Your task to perform on an android device: Open Yahoo.com Image 0: 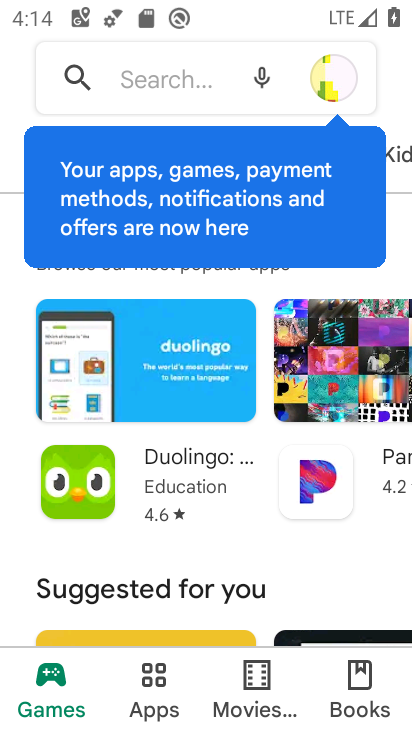
Step 0: press home button
Your task to perform on an android device: Open Yahoo.com Image 1: 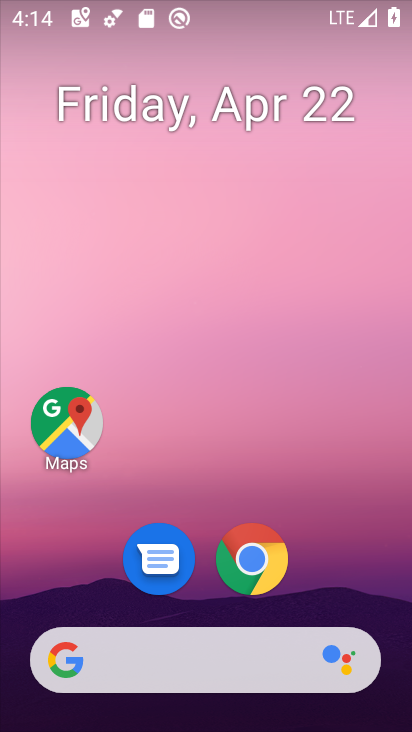
Step 1: click (270, 565)
Your task to perform on an android device: Open Yahoo.com Image 2: 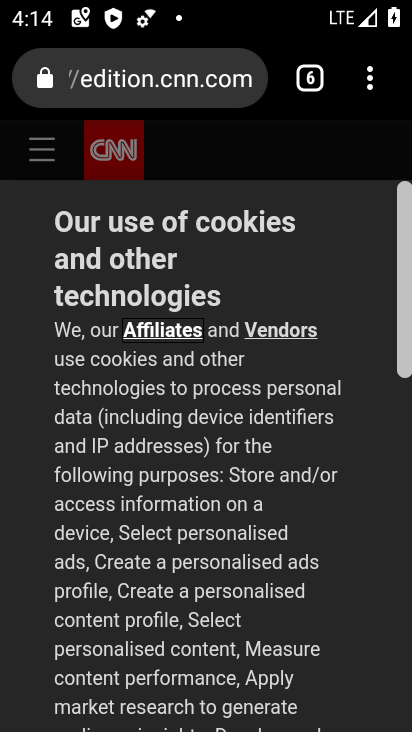
Step 2: click (299, 80)
Your task to perform on an android device: Open Yahoo.com Image 3: 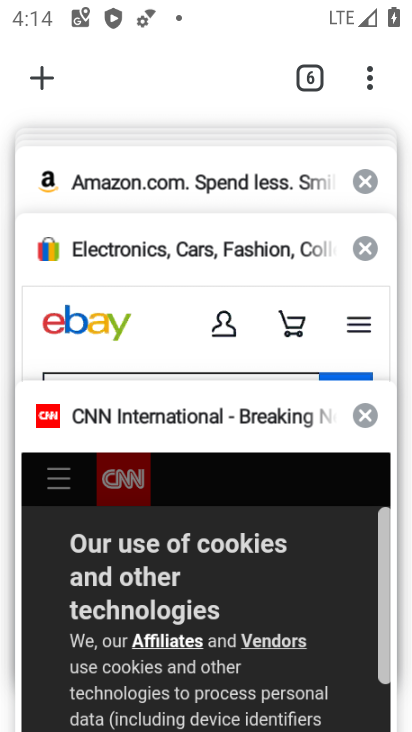
Step 3: click (42, 79)
Your task to perform on an android device: Open Yahoo.com Image 4: 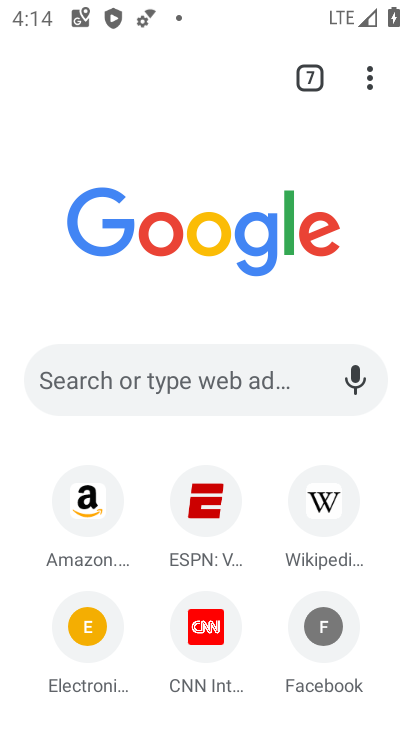
Step 4: click (159, 376)
Your task to perform on an android device: Open Yahoo.com Image 5: 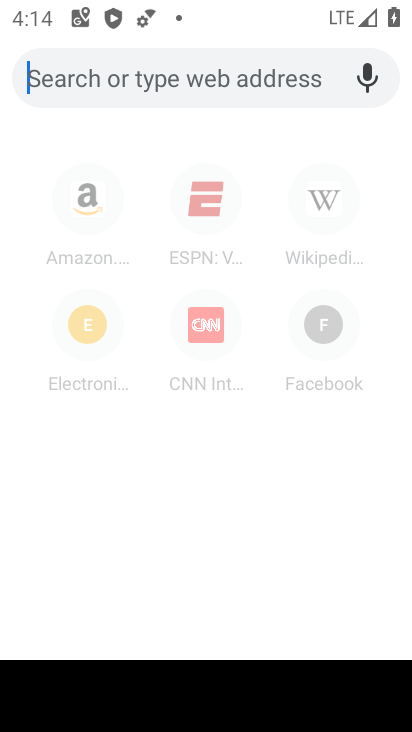
Step 5: type "yahoo.com"
Your task to perform on an android device: Open Yahoo.com Image 6: 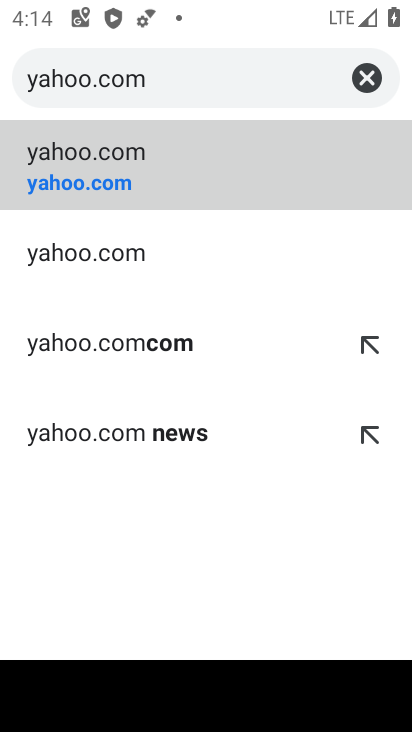
Step 6: click (135, 163)
Your task to perform on an android device: Open Yahoo.com Image 7: 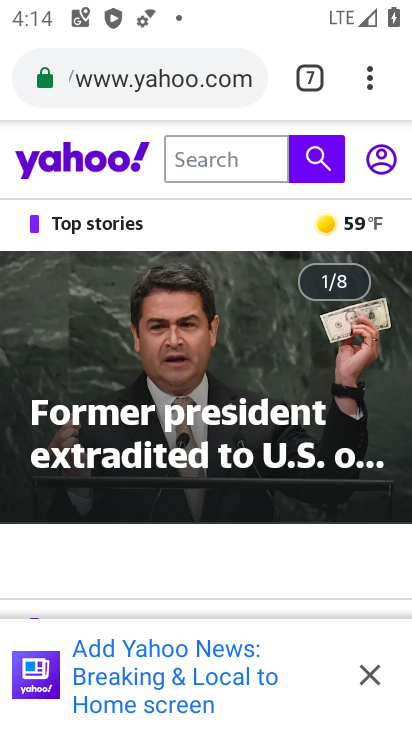
Step 7: task complete